Your task to perform on an android device: What's on the menu at McDonalds? Image 0: 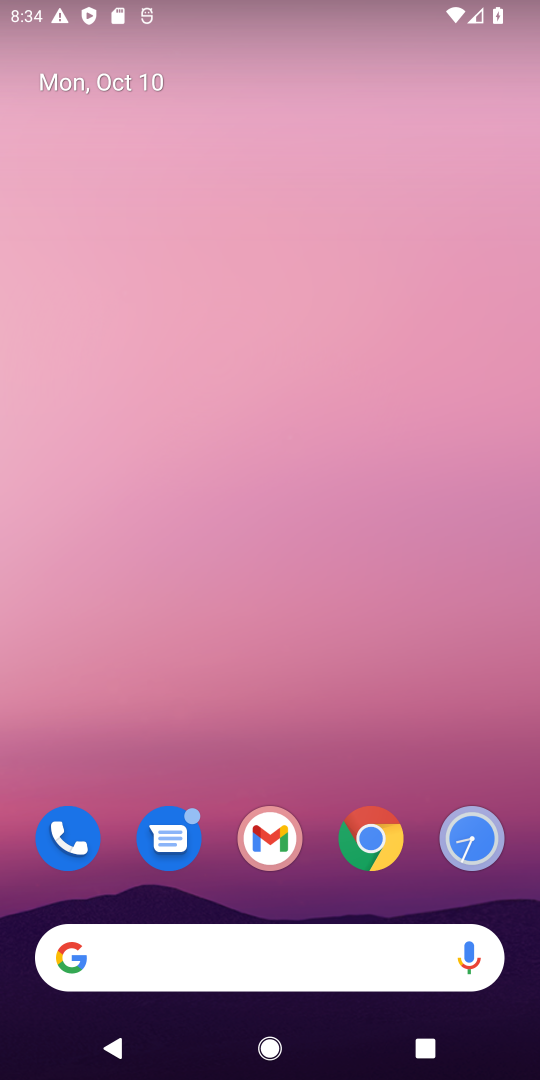
Step 0: drag from (314, 840) to (285, 90)
Your task to perform on an android device: What's on the menu at McDonalds? Image 1: 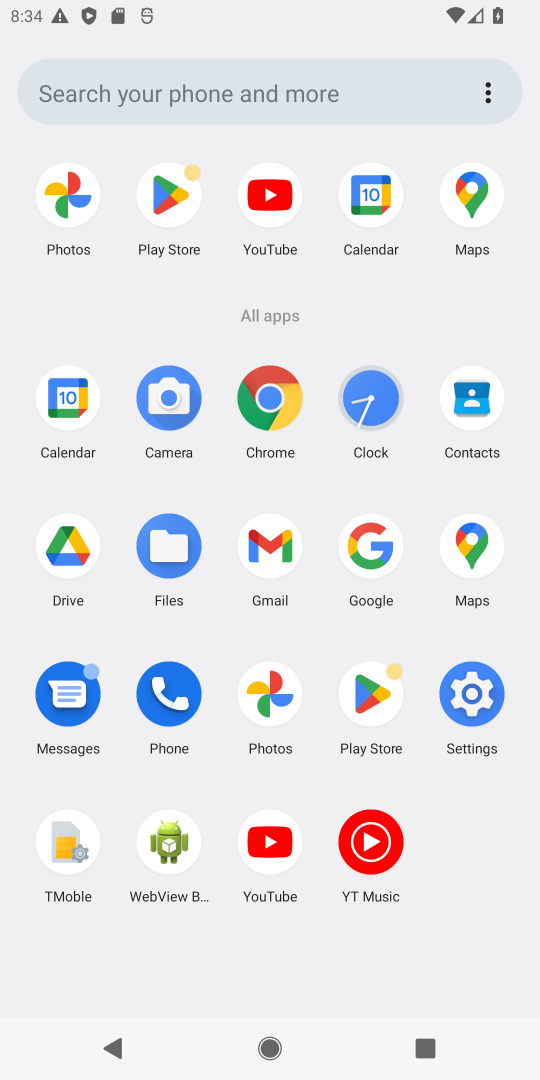
Step 1: click (384, 542)
Your task to perform on an android device: What's on the menu at McDonalds? Image 2: 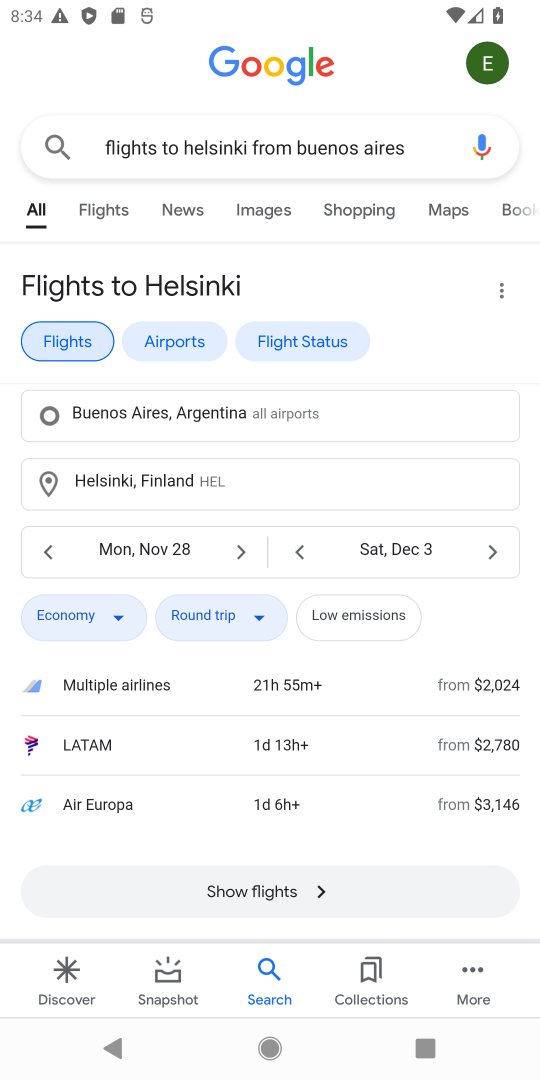
Step 2: click (429, 159)
Your task to perform on an android device: What's on the menu at McDonalds? Image 3: 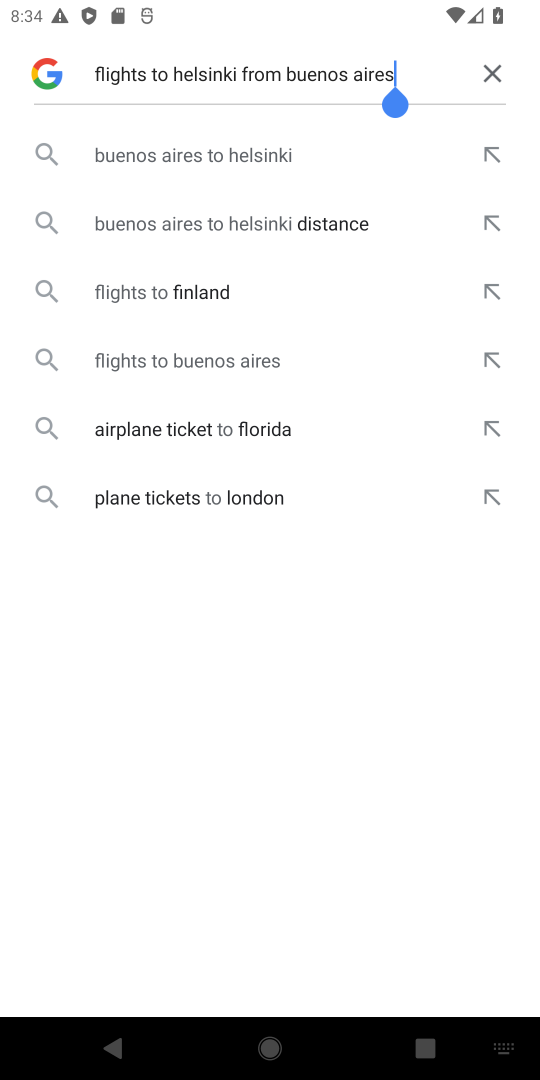
Step 3: click (494, 75)
Your task to perform on an android device: What's on the menu at McDonalds? Image 4: 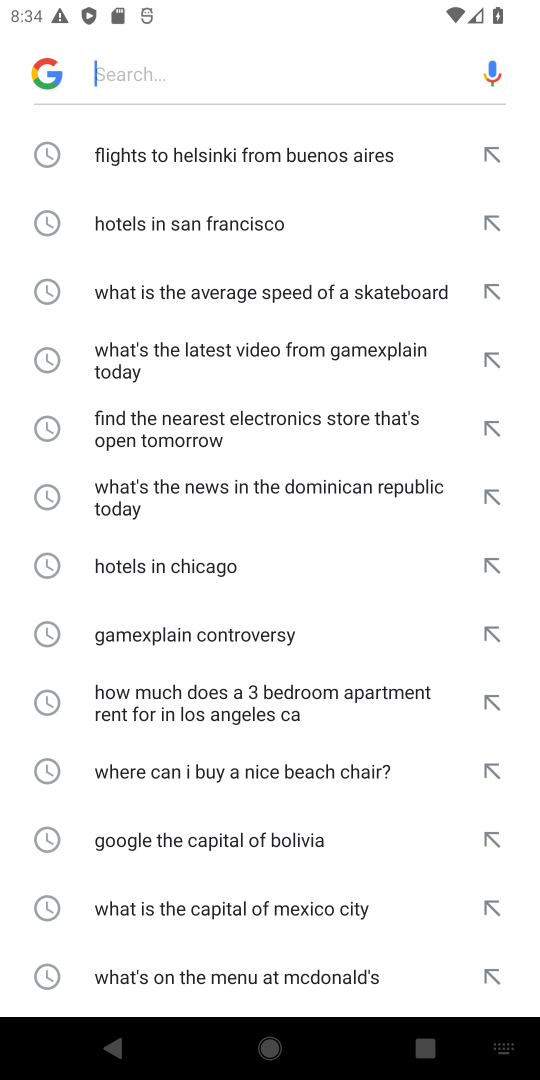
Step 4: type "What's on the menu at McDonalds?"
Your task to perform on an android device: What's on the menu at McDonalds? Image 5: 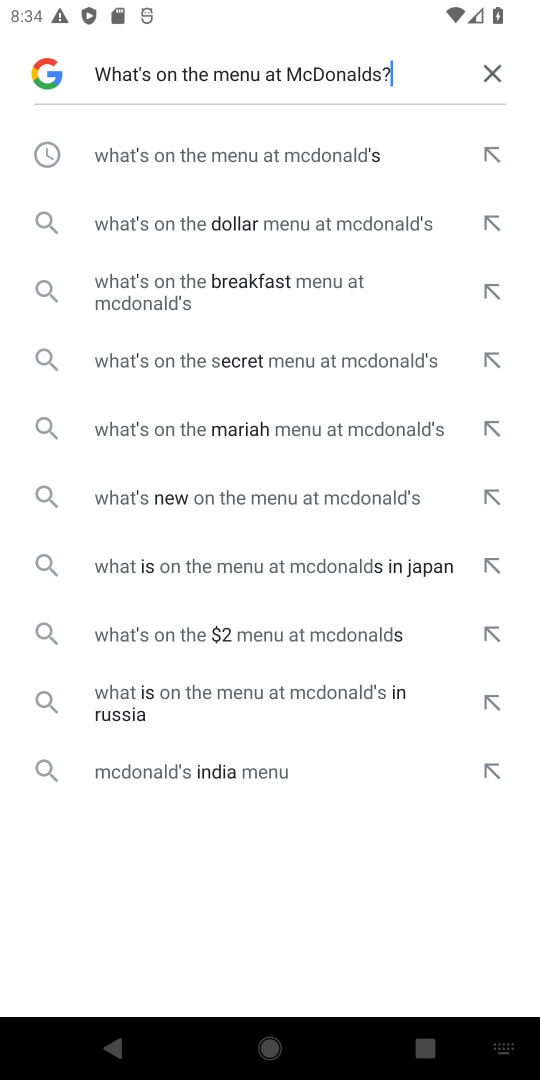
Step 5: type ""
Your task to perform on an android device: What's on the menu at McDonalds? Image 6: 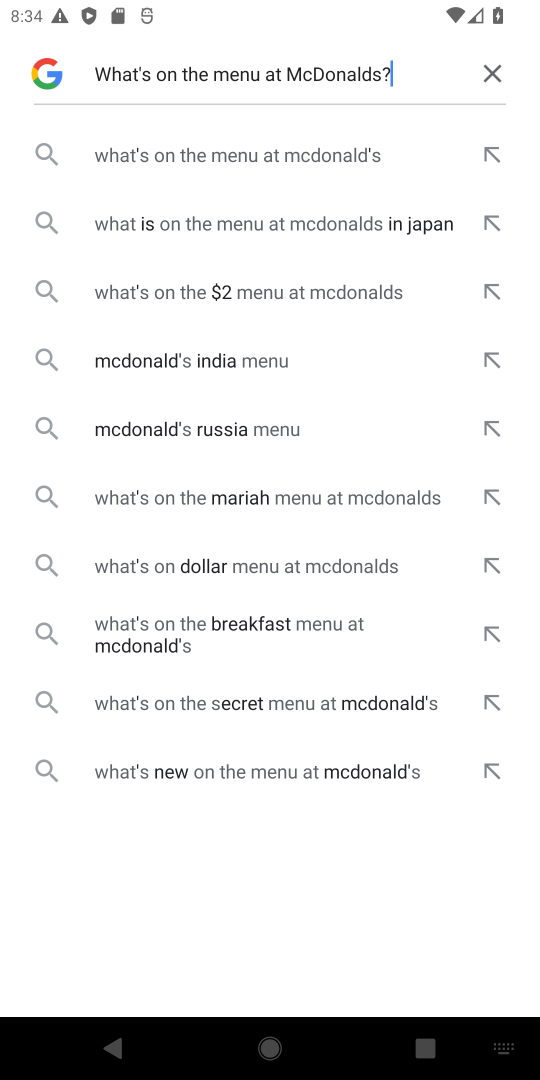
Step 6: click (218, 147)
Your task to perform on an android device: What's on the menu at McDonalds? Image 7: 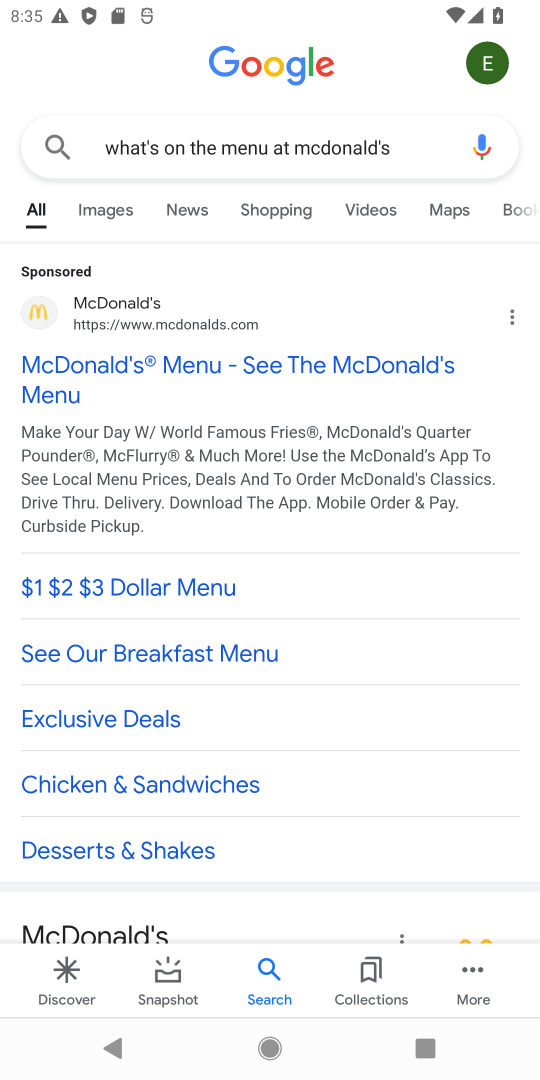
Step 7: task complete